Your task to perform on an android device: choose inbox layout in the gmail app Image 0: 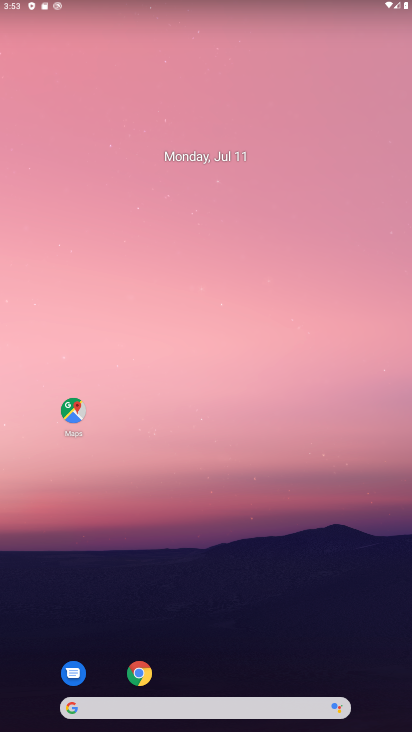
Step 0: click (208, 635)
Your task to perform on an android device: choose inbox layout in the gmail app Image 1: 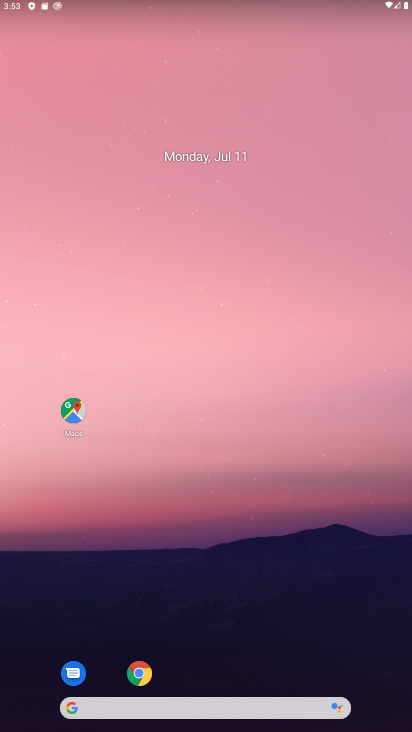
Step 1: drag from (204, 675) to (288, 168)
Your task to perform on an android device: choose inbox layout in the gmail app Image 2: 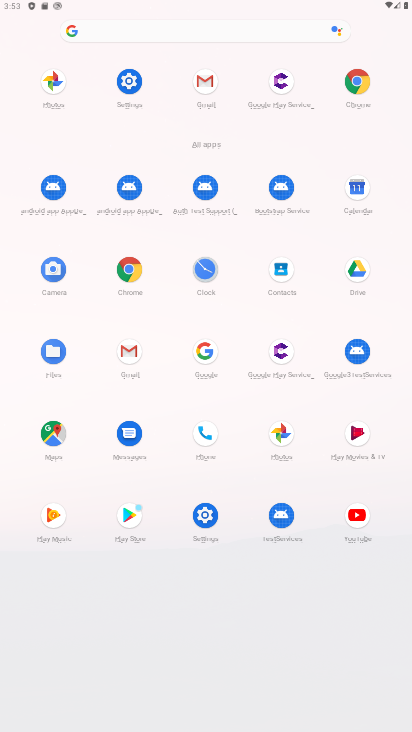
Step 2: click (130, 350)
Your task to perform on an android device: choose inbox layout in the gmail app Image 3: 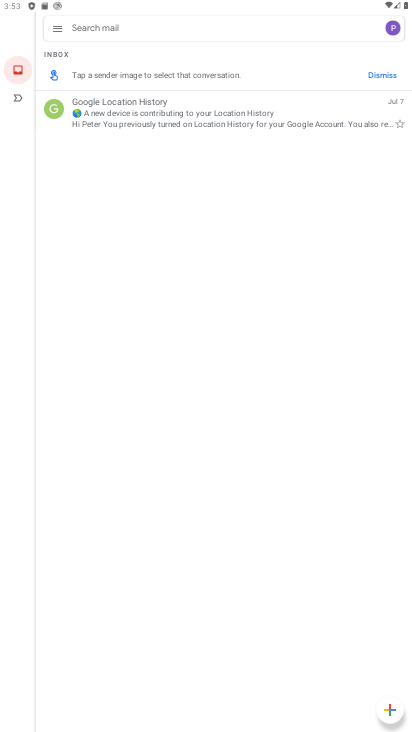
Step 3: click (58, 28)
Your task to perform on an android device: choose inbox layout in the gmail app Image 4: 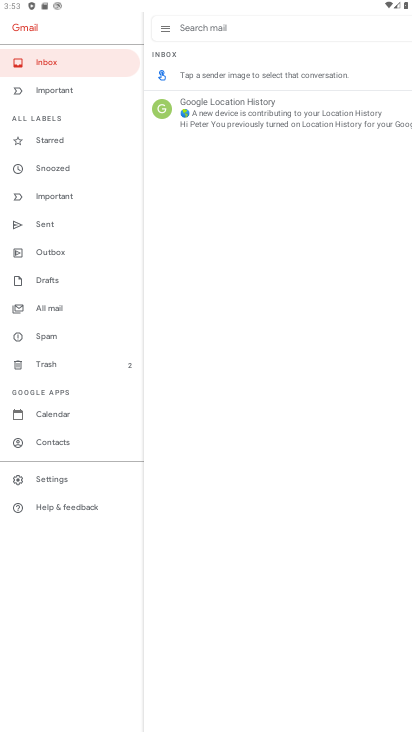
Step 4: click (62, 485)
Your task to perform on an android device: choose inbox layout in the gmail app Image 5: 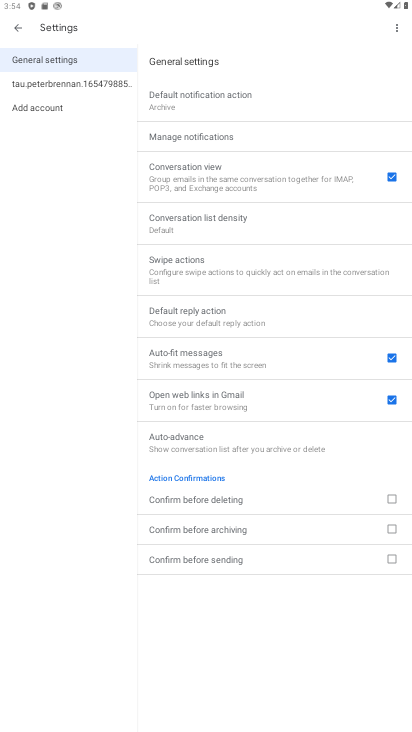
Step 5: click (82, 81)
Your task to perform on an android device: choose inbox layout in the gmail app Image 6: 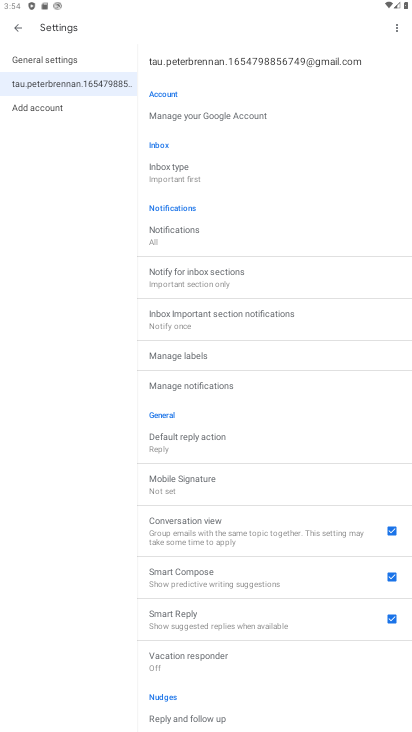
Step 6: click (188, 179)
Your task to perform on an android device: choose inbox layout in the gmail app Image 7: 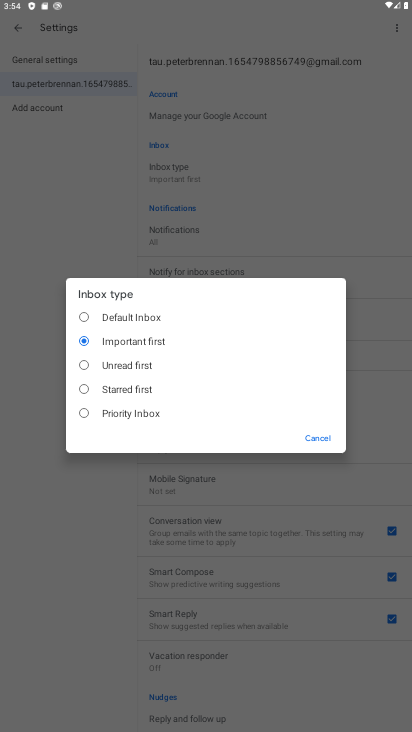
Step 7: click (79, 370)
Your task to perform on an android device: choose inbox layout in the gmail app Image 8: 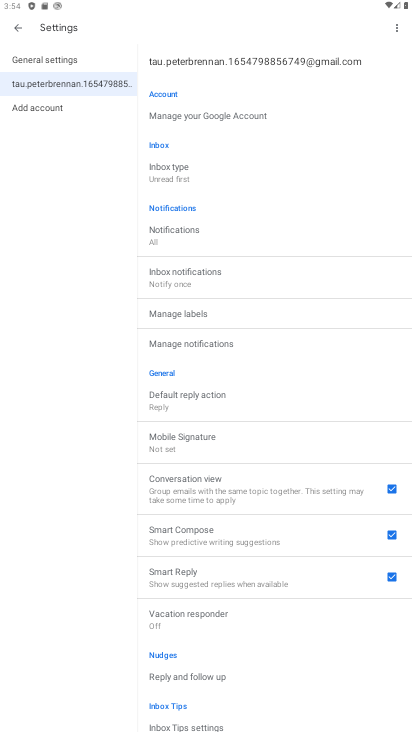
Step 8: task complete